Your task to perform on an android device: Is it going to rain tomorrow? Image 0: 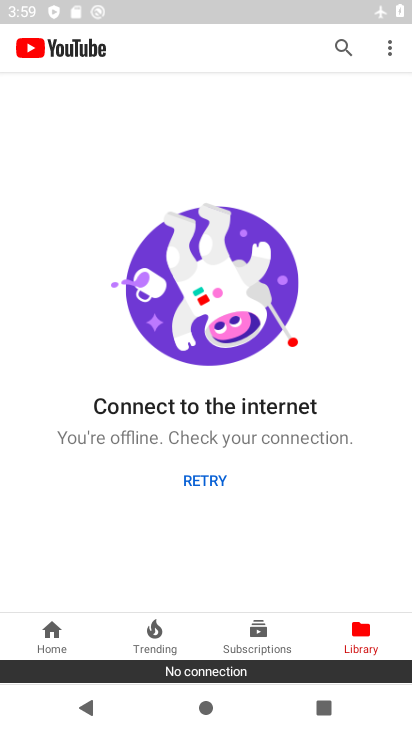
Step 0: press home button
Your task to perform on an android device: Is it going to rain tomorrow? Image 1: 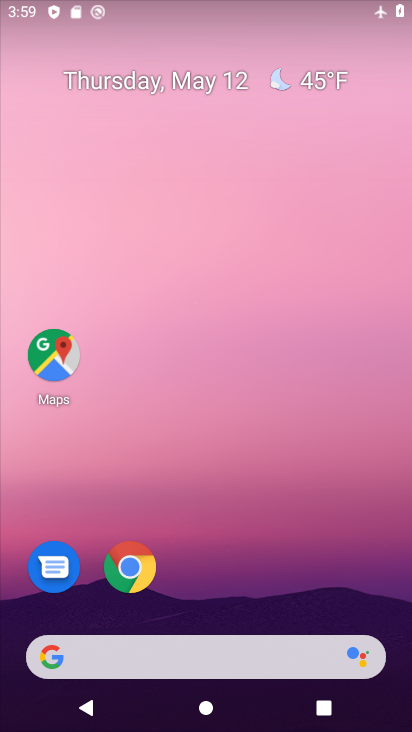
Step 1: drag from (222, 599) to (174, 179)
Your task to perform on an android device: Is it going to rain tomorrow? Image 2: 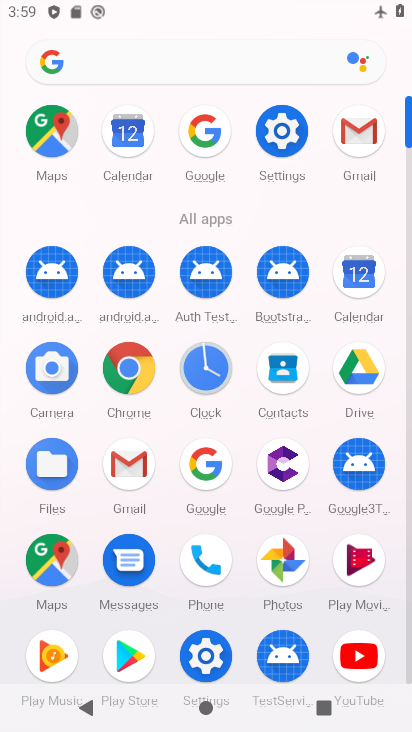
Step 2: click (208, 468)
Your task to perform on an android device: Is it going to rain tomorrow? Image 3: 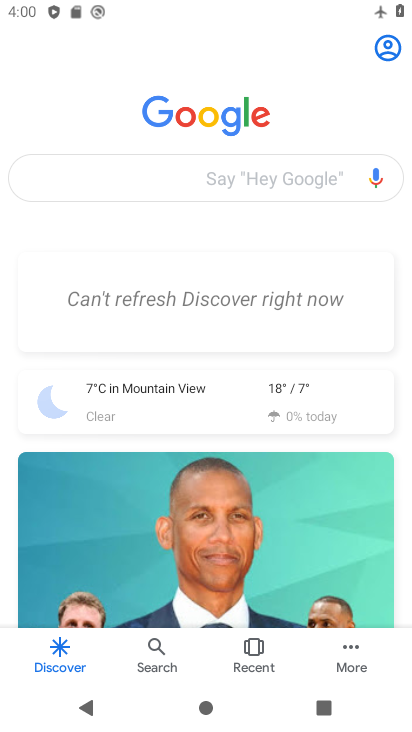
Step 3: click (162, 379)
Your task to perform on an android device: Is it going to rain tomorrow? Image 4: 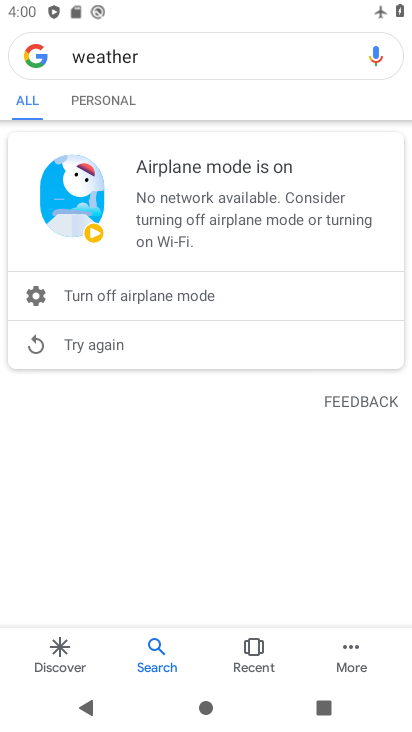
Step 4: task complete